Your task to perform on an android device: search for starred emails in the gmail app Image 0: 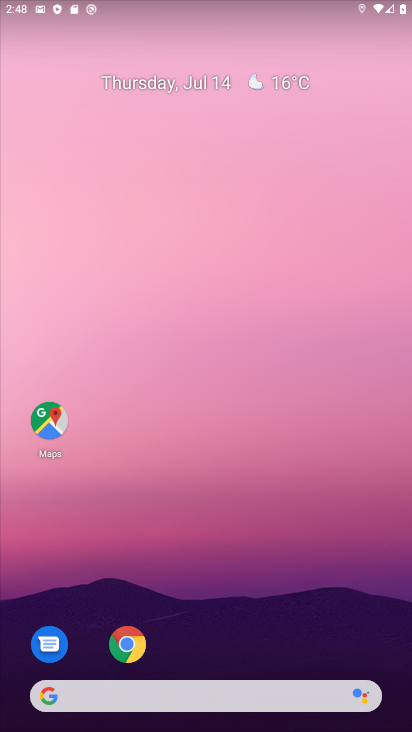
Step 0: drag from (218, 624) to (220, 246)
Your task to perform on an android device: search for starred emails in the gmail app Image 1: 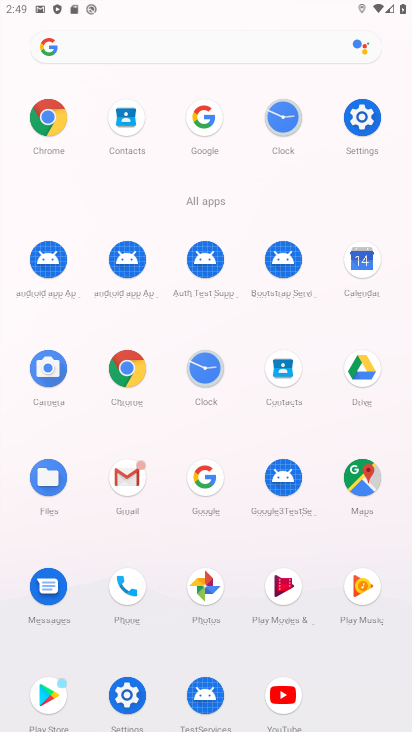
Step 1: click (125, 478)
Your task to perform on an android device: search for starred emails in the gmail app Image 2: 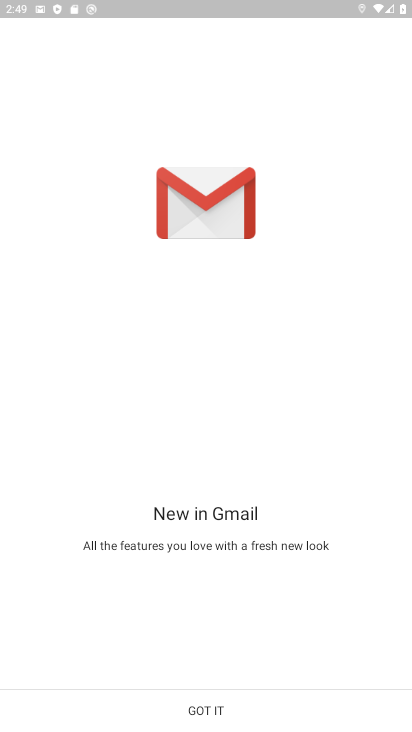
Step 2: click (281, 699)
Your task to perform on an android device: search for starred emails in the gmail app Image 3: 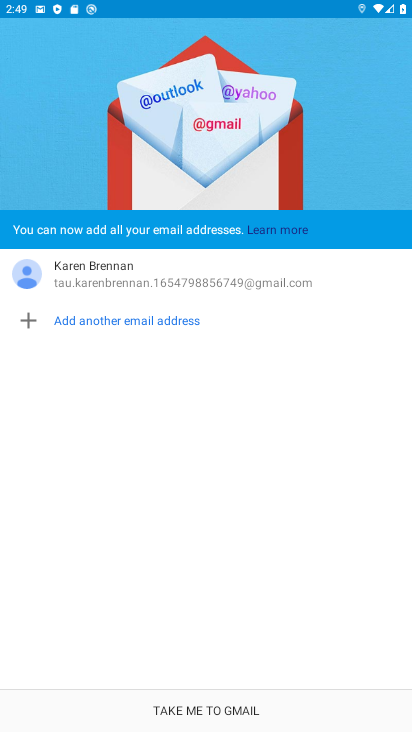
Step 3: click (281, 699)
Your task to perform on an android device: search for starred emails in the gmail app Image 4: 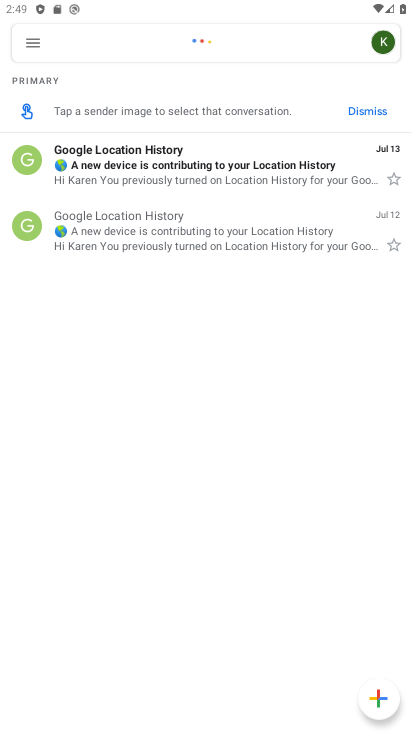
Step 4: click (27, 53)
Your task to perform on an android device: search for starred emails in the gmail app Image 5: 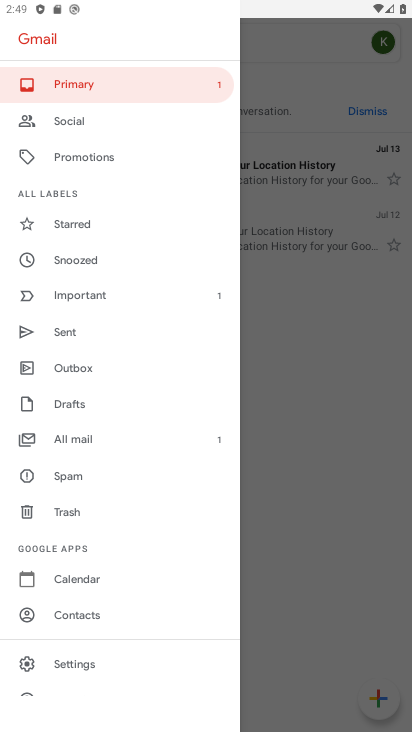
Step 5: click (96, 230)
Your task to perform on an android device: search for starred emails in the gmail app Image 6: 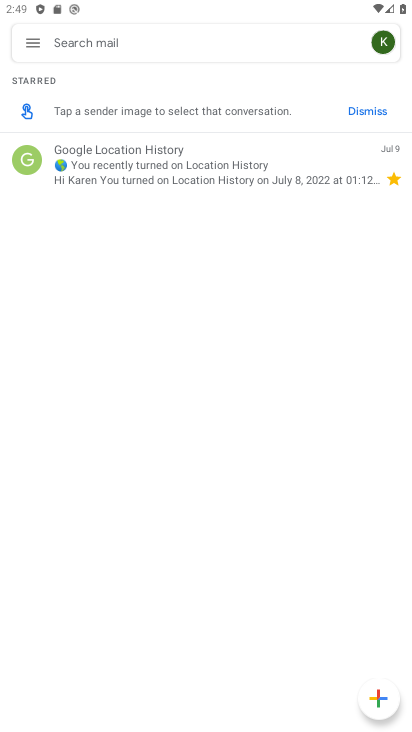
Step 6: task complete